Your task to perform on an android device: Go to eBay Image 0: 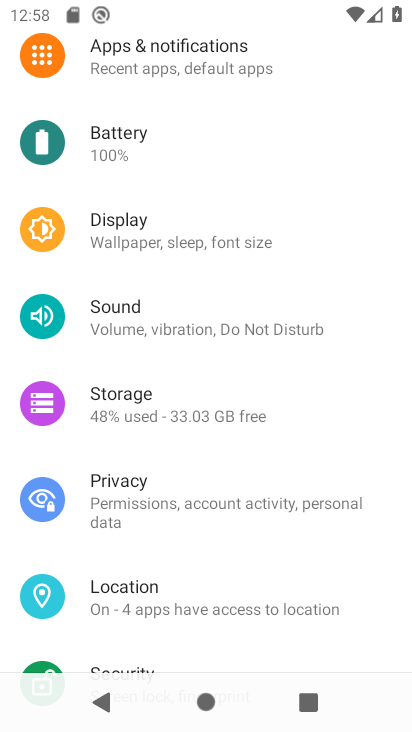
Step 0: press home button
Your task to perform on an android device: Go to eBay Image 1: 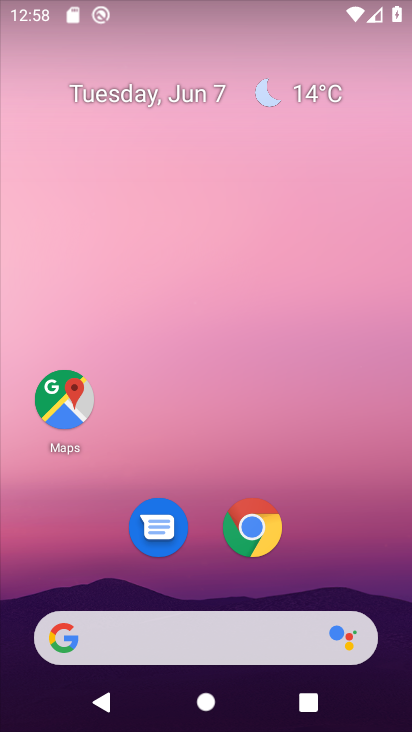
Step 1: click (256, 534)
Your task to perform on an android device: Go to eBay Image 2: 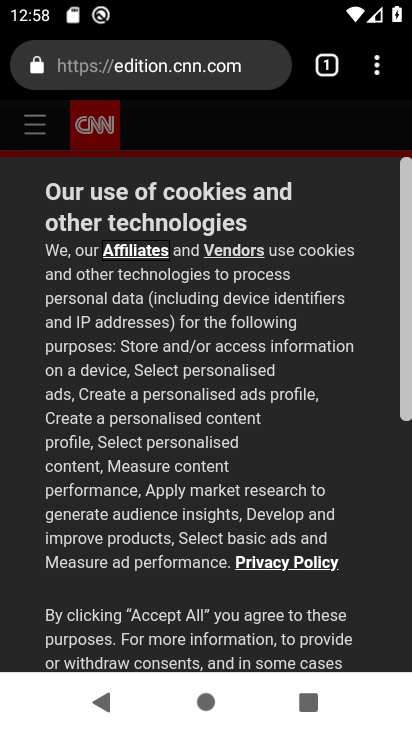
Step 2: click (196, 67)
Your task to perform on an android device: Go to eBay Image 3: 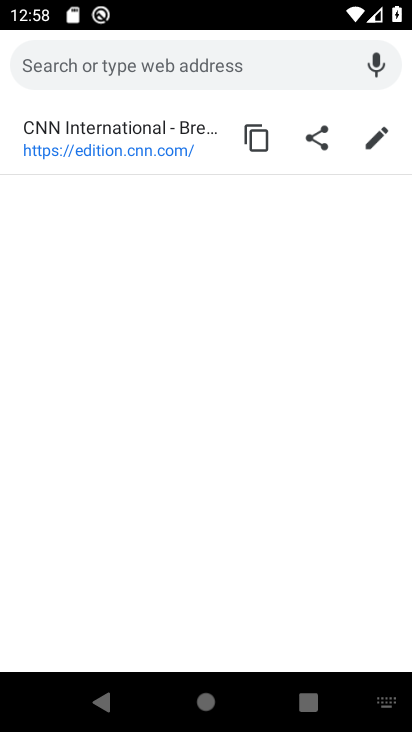
Step 3: type "ebay"
Your task to perform on an android device: Go to eBay Image 4: 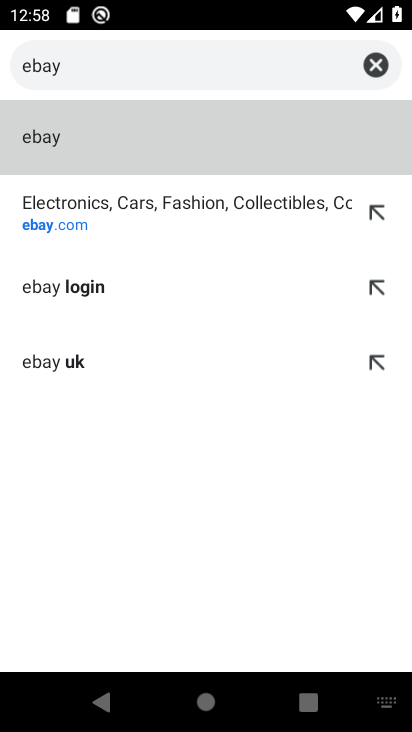
Step 4: click (56, 150)
Your task to perform on an android device: Go to eBay Image 5: 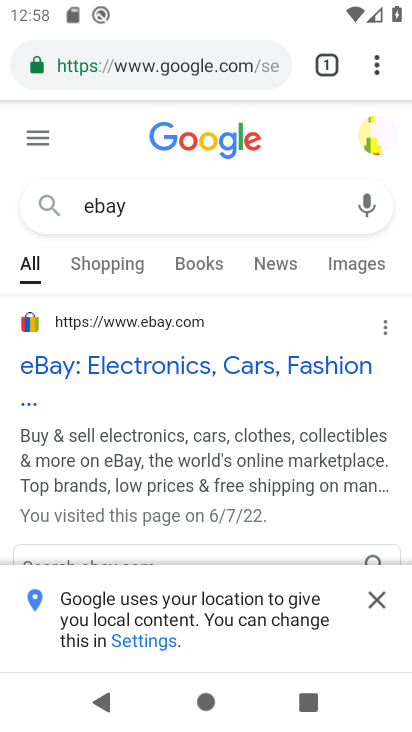
Step 5: click (216, 360)
Your task to perform on an android device: Go to eBay Image 6: 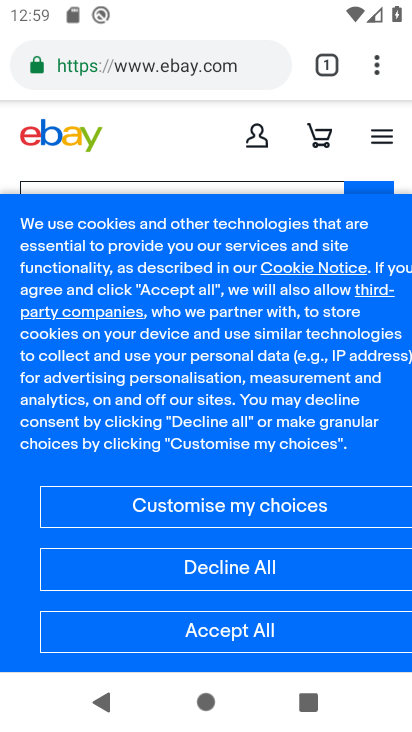
Step 6: task complete